Your task to perform on an android device: Go to Google Image 0: 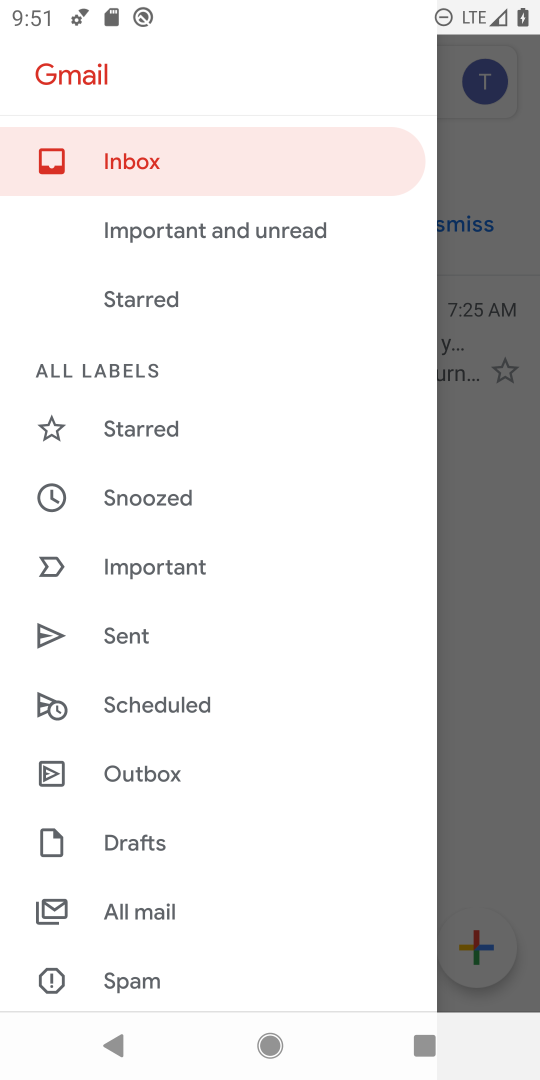
Step 0: click (524, 816)
Your task to perform on an android device: Go to Google Image 1: 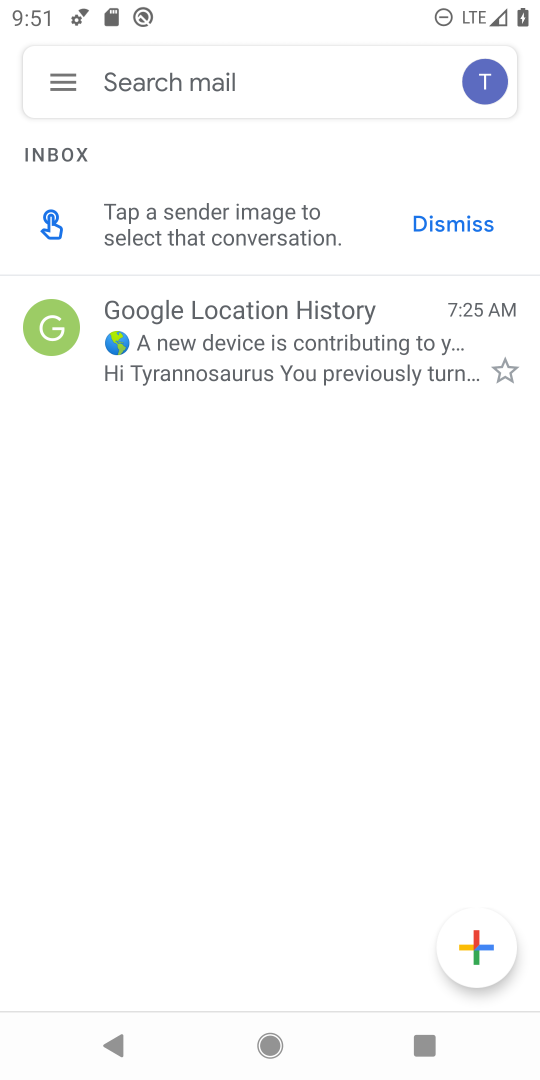
Step 1: click (274, 1043)
Your task to perform on an android device: Go to Google Image 2: 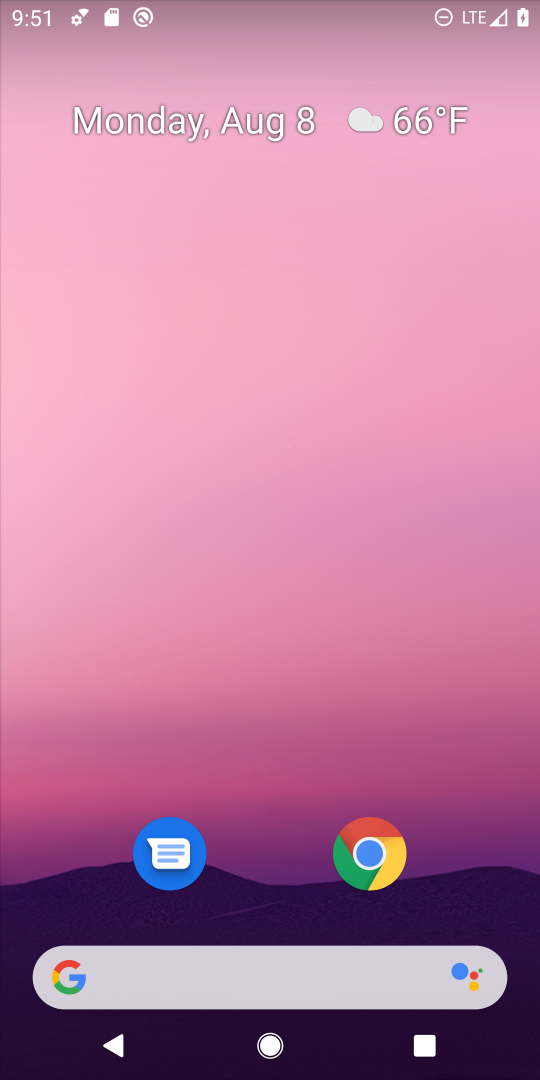
Step 2: click (216, 977)
Your task to perform on an android device: Go to Google Image 3: 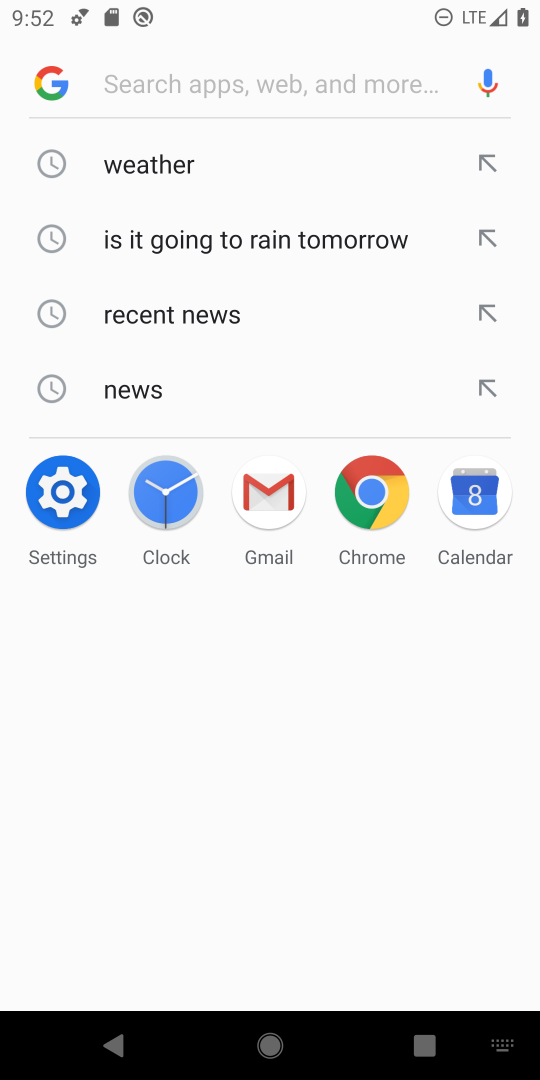
Step 3: task complete